Your task to perform on an android device: add a contact in the contacts app Image 0: 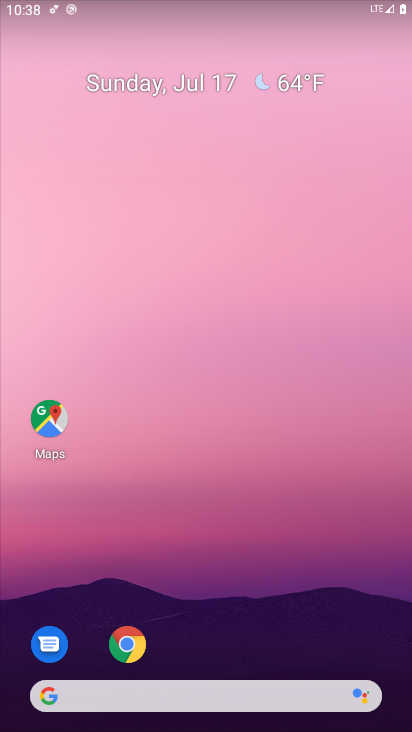
Step 0: press home button
Your task to perform on an android device: add a contact in the contacts app Image 1: 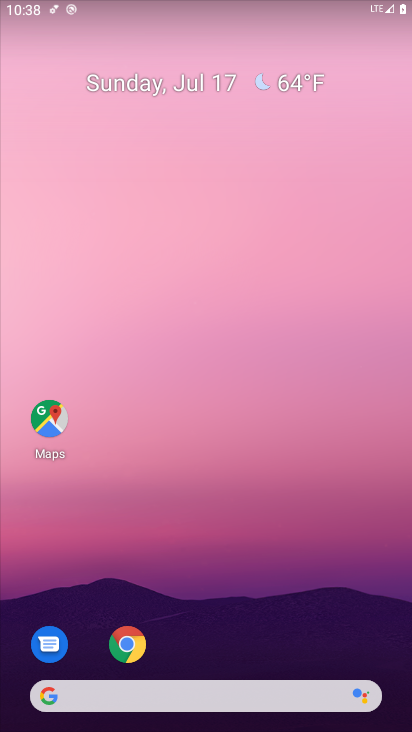
Step 1: press home button
Your task to perform on an android device: add a contact in the contacts app Image 2: 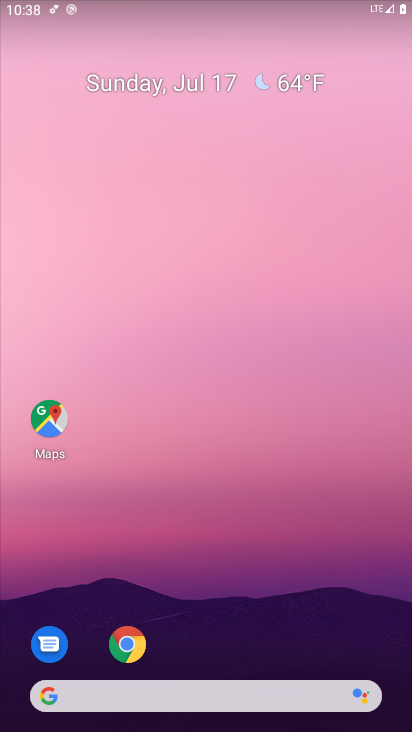
Step 2: drag from (247, 580) to (305, 0)
Your task to perform on an android device: add a contact in the contacts app Image 3: 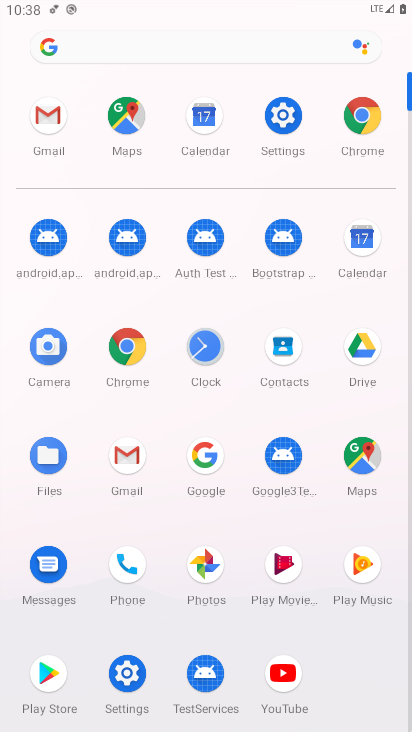
Step 3: click (275, 350)
Your task to perform on an android device: add a contact in the contacts app Image 4: 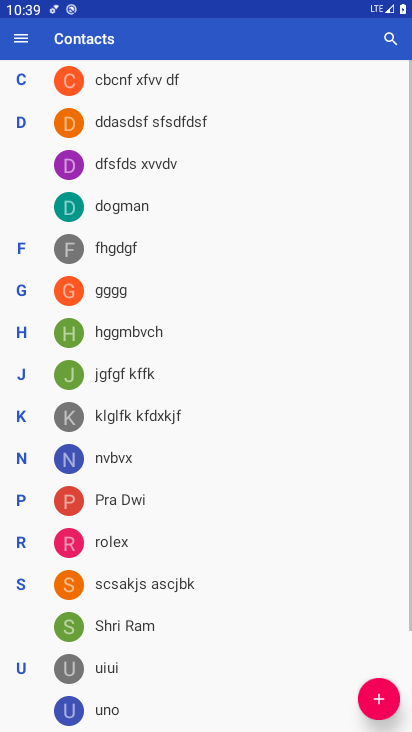
Step 4: click (386, 698)
Your task to perform on an android device: add a contact in the contacts app Image 5: 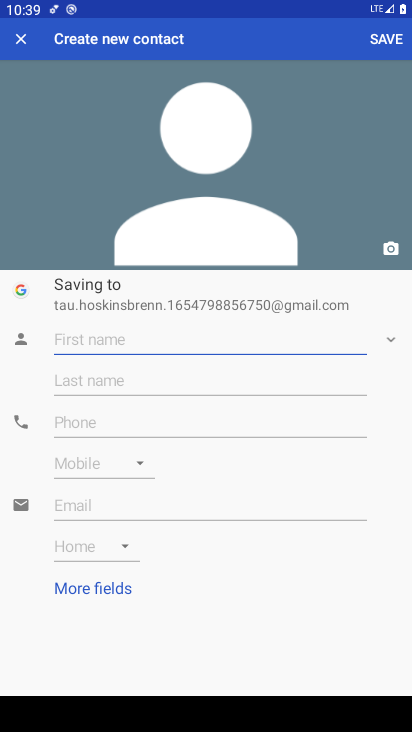
Step 5: click (134, 337)
Your task to perform on an android device: add a contact in the contacts app Image 6: 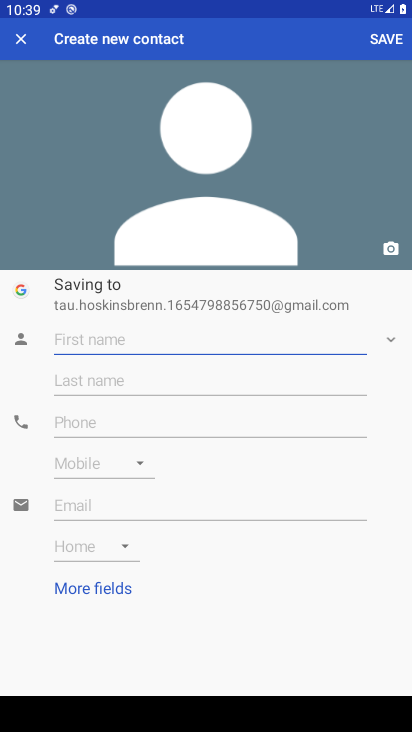
Step 6: type "hnhdghdfd"
Your task to perform on an android device: add a contact in the contacts app Image 7: 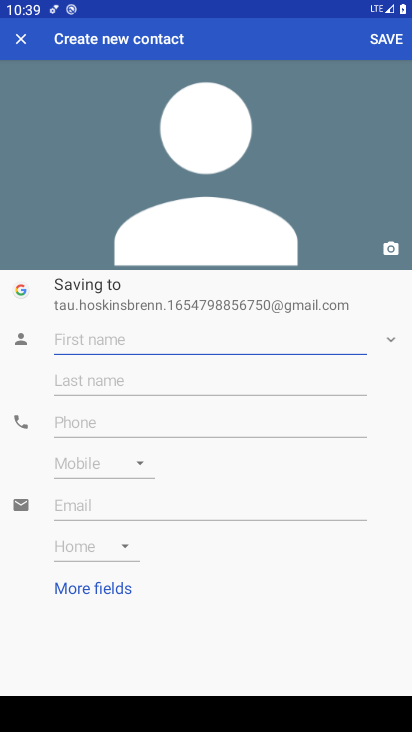
Step 7: click (74, 338)
Your task to perform on an android device: add a contact in the contacts app Image 8: 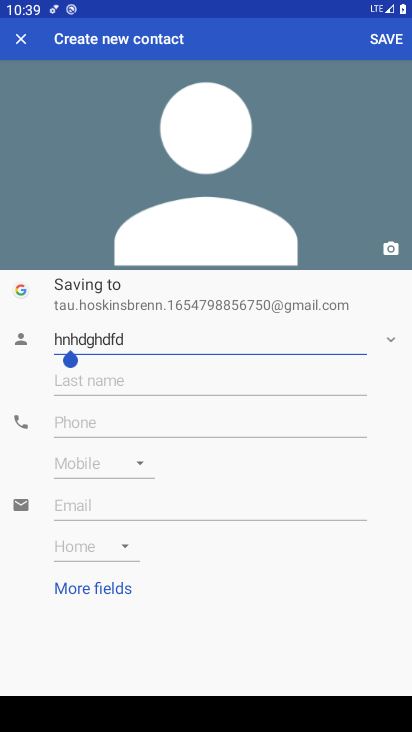
Step 8: click (98, 423)
Your task to perform on an android device: add a contact in the contacts app Image 9: 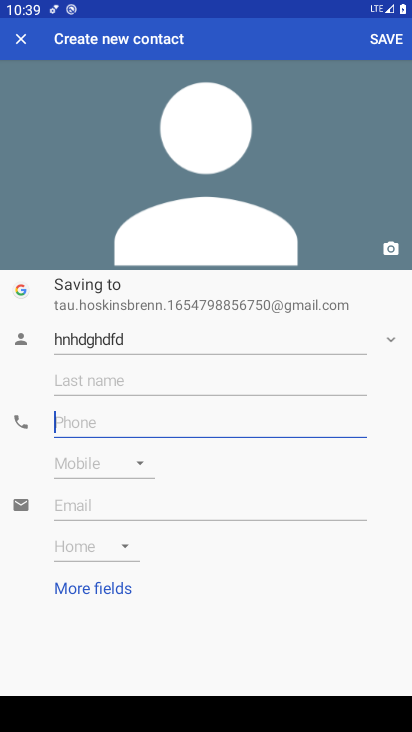
Step 9: type "545454545454"
Your task to perform on an android device: add a contact in the contacts app Image 10: 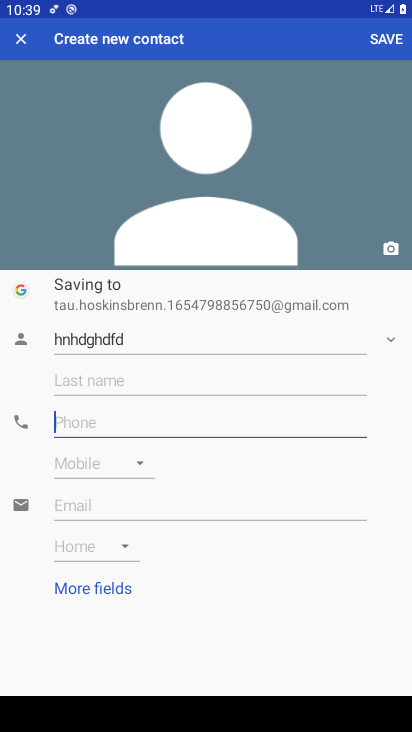
Step 10: click (167, 423)
Your task to perform on an android device: add a contact in the contacts app Image 11: 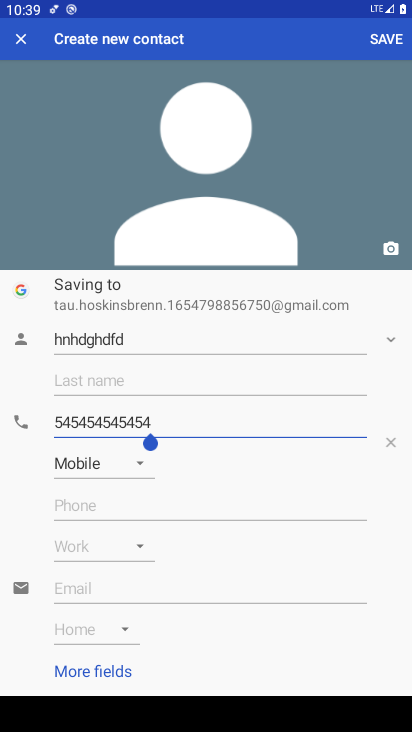
Step 11: click (388, 36)
Your task to perform on an android device: add a contact in the contacts app Image 12: 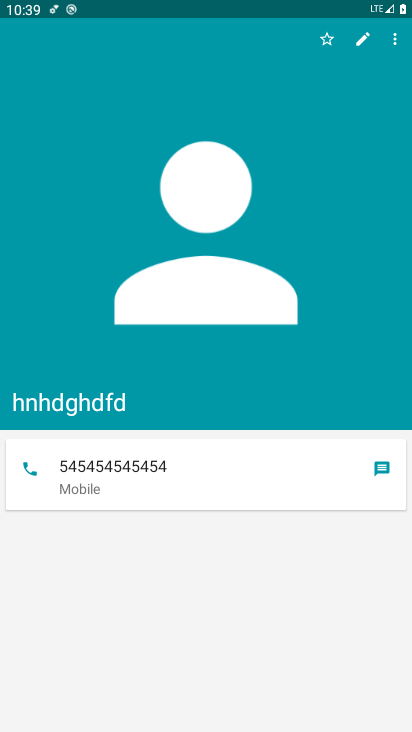
Step 12: task complete